Your task to perform on an android device: What's on the menu at Papa Murphy's? Image 0: 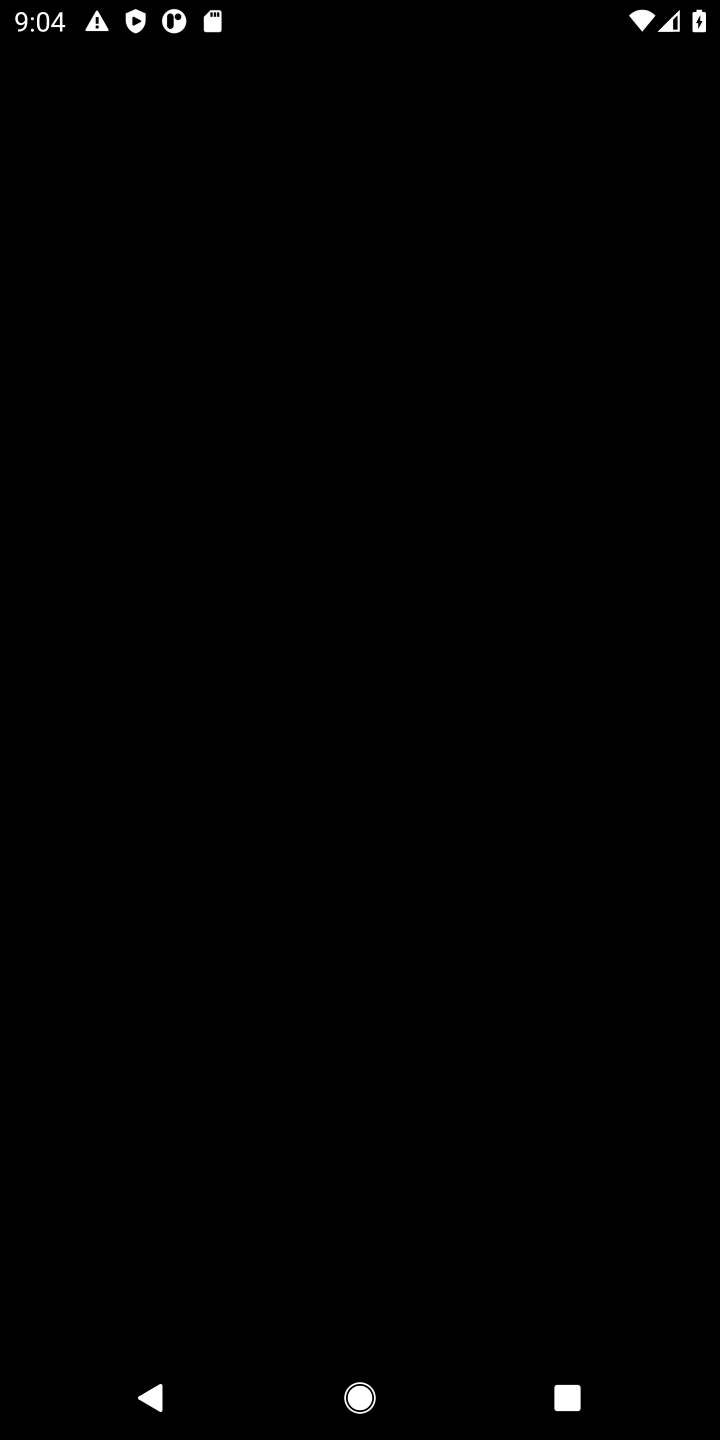
Step 0: press home button
Your task to perform on an android device: What's on the menu at Papa Murphy's? Image 1: 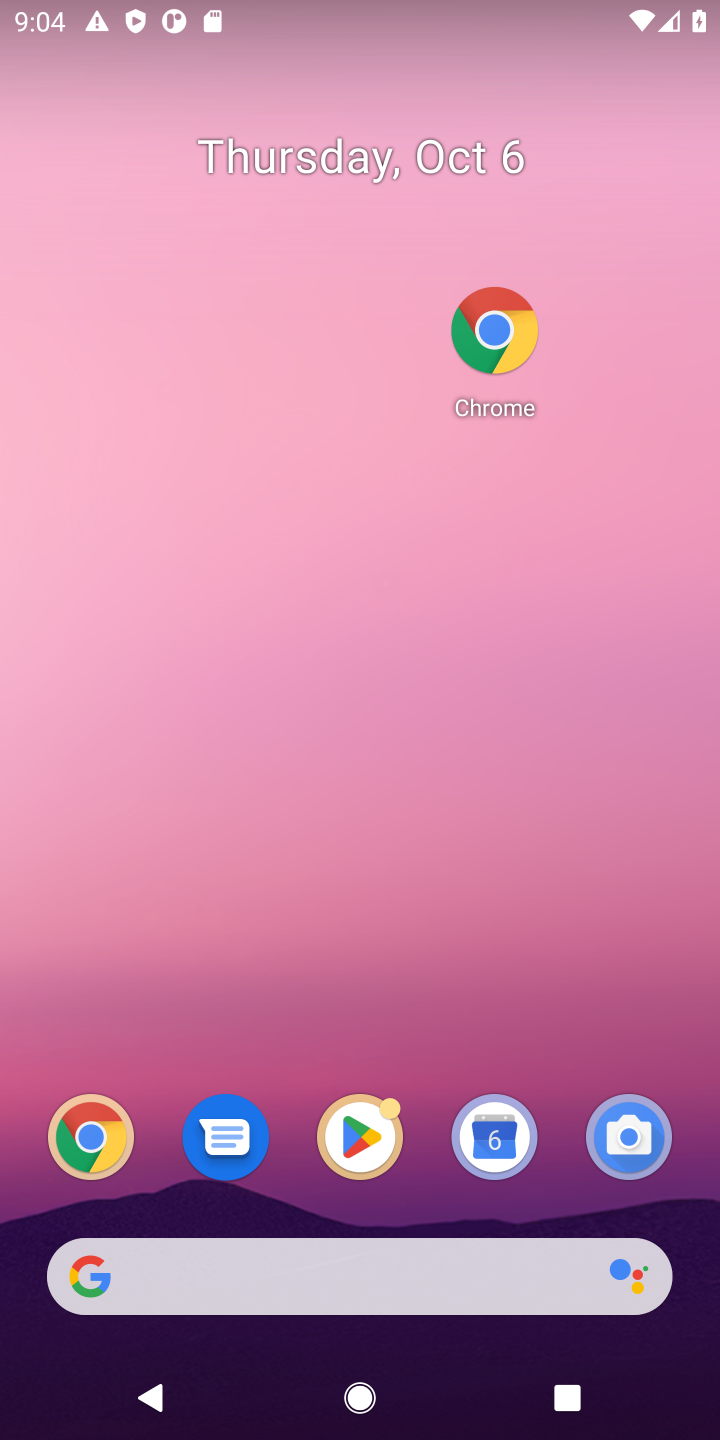
Step 1: click (108, 1145)
Your task to perform on an android device: What's on the menu at Papa Murphy's? Image 2: 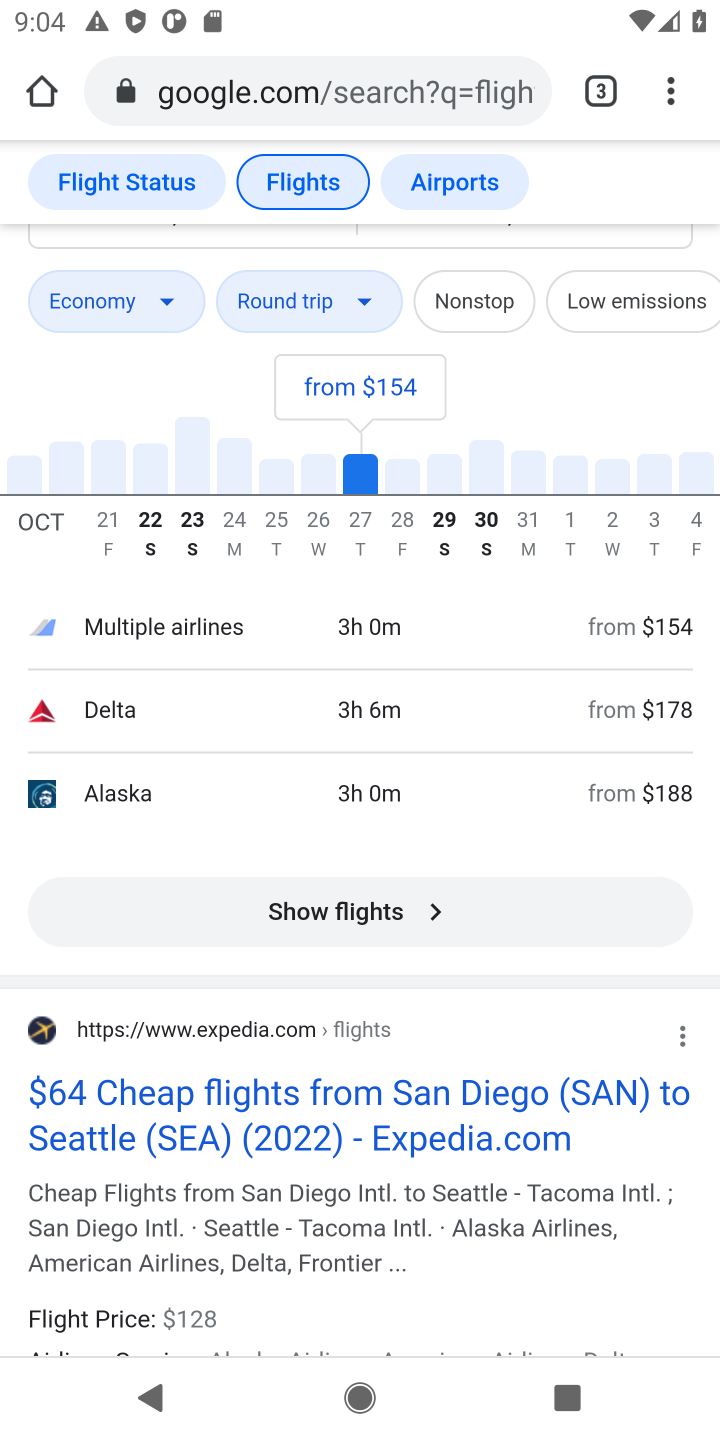
Step 2: click (514, 91)
Your task to perform on an android device: What's on the menu at Papa Murphy's? Image 3: 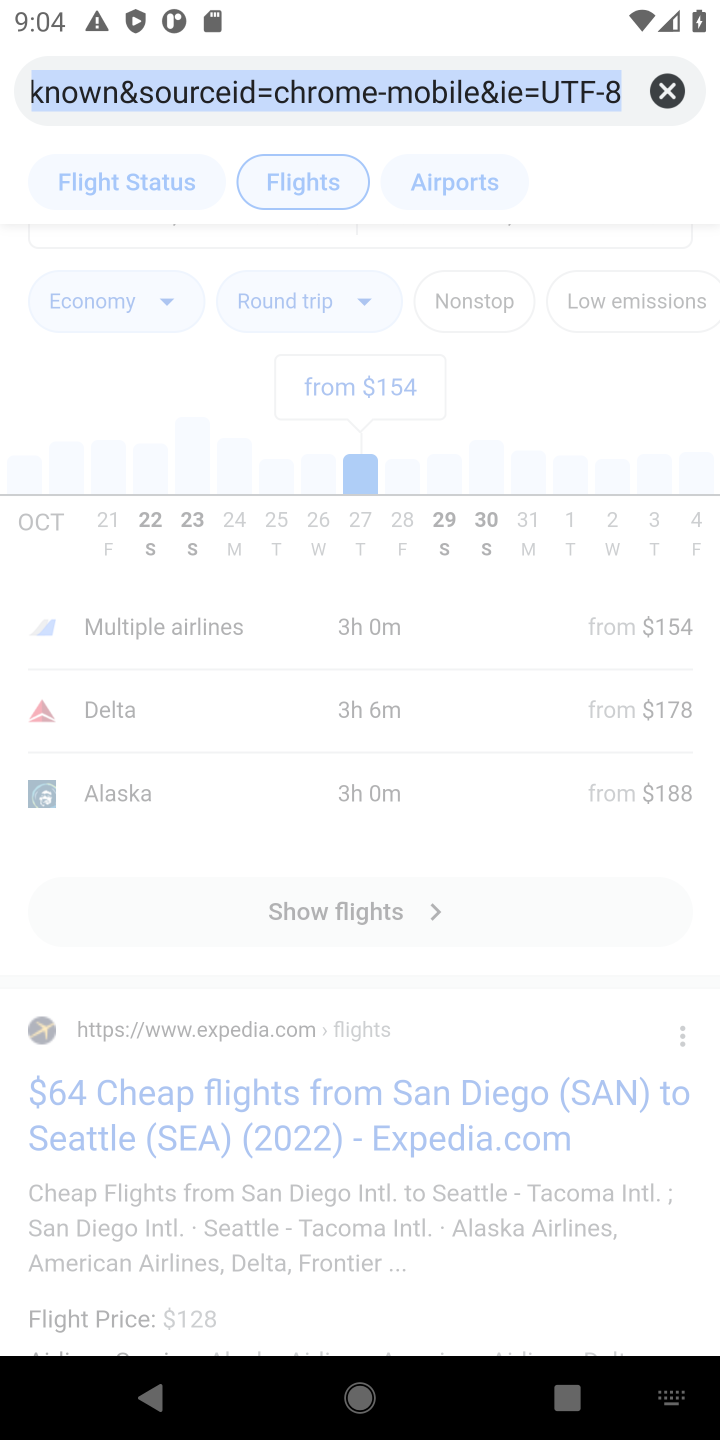
Step 3: click (646, 103)
Your task to perform on an android device: What's on the menu at Papa Murphy's? Image 4: 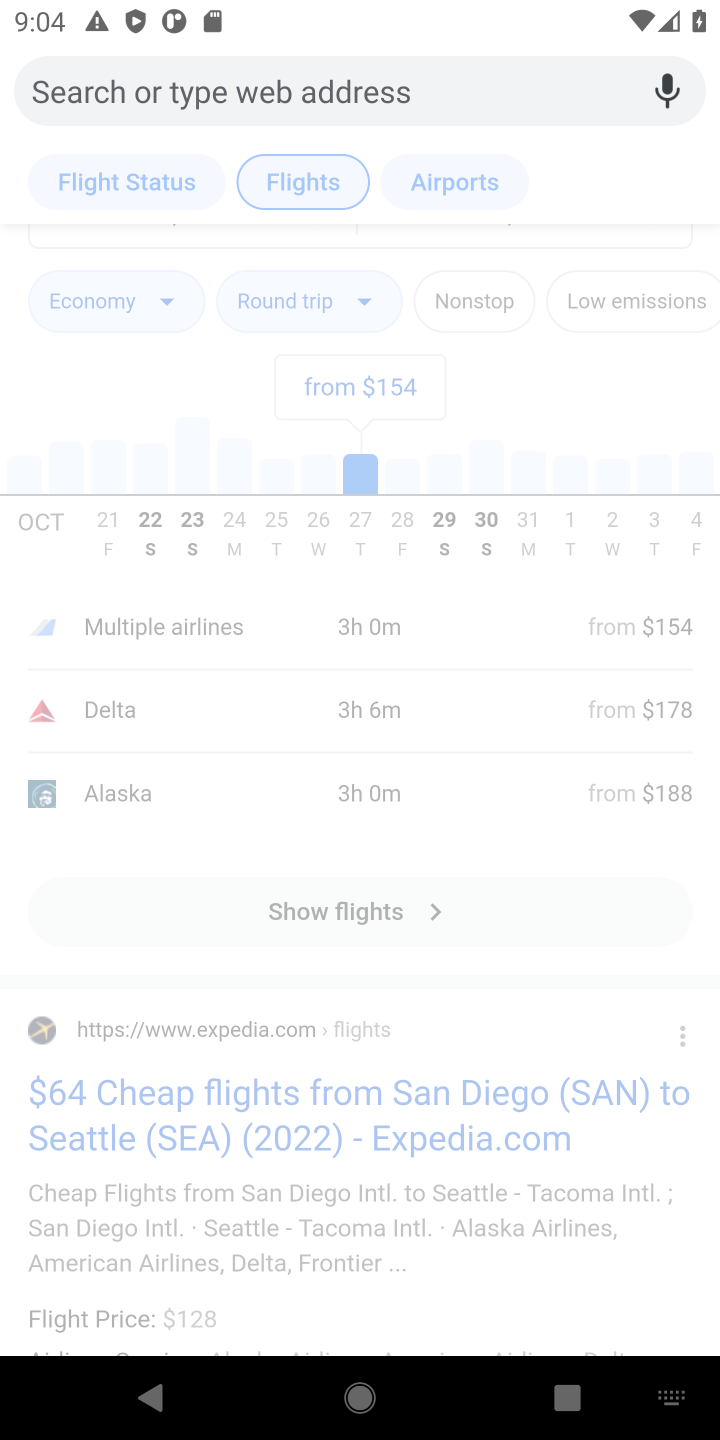
Step 4: type "menu at Papa Murphy's"
Your task to perform on an android device: What's on the menu at Papa Murphy's? Image 5: 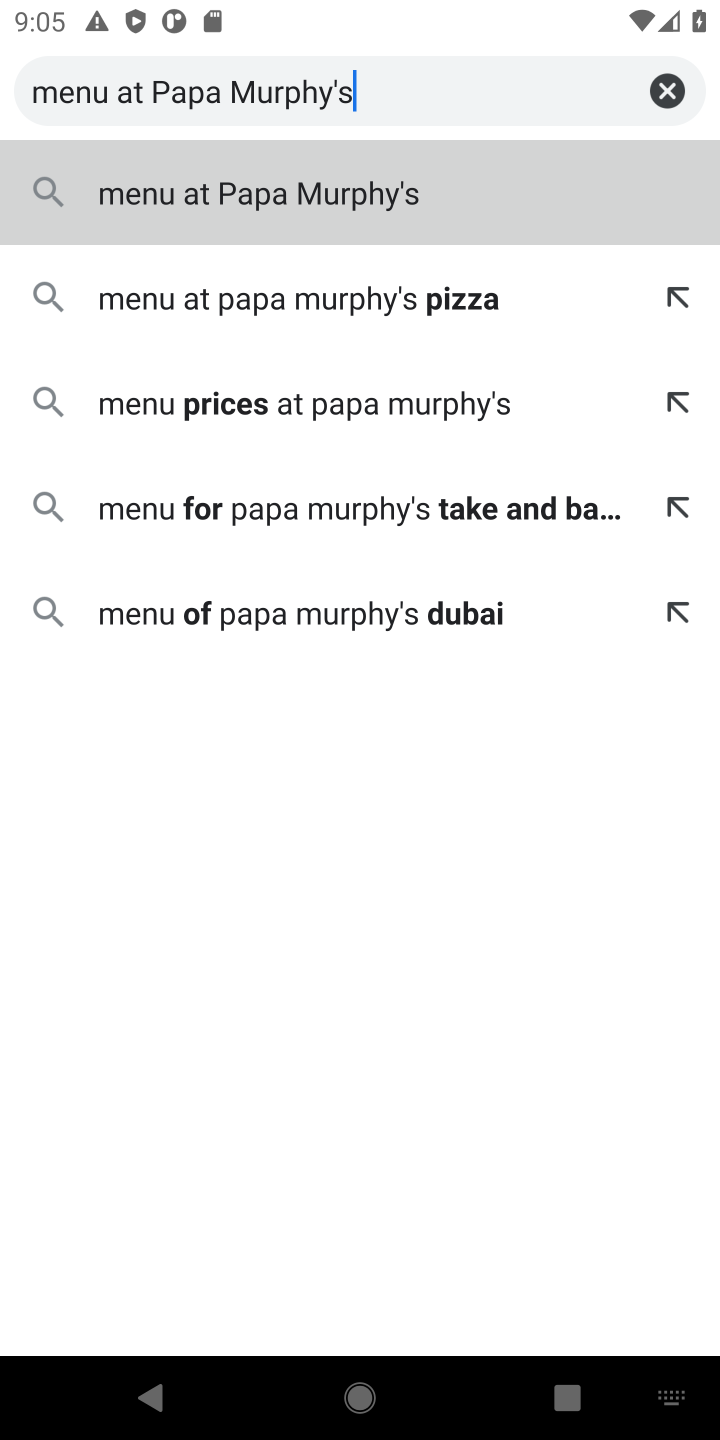
Step 5: click (211, 197)
Your task to perform on an android device: What's on the menu at Papa Murphy's? Image 6: 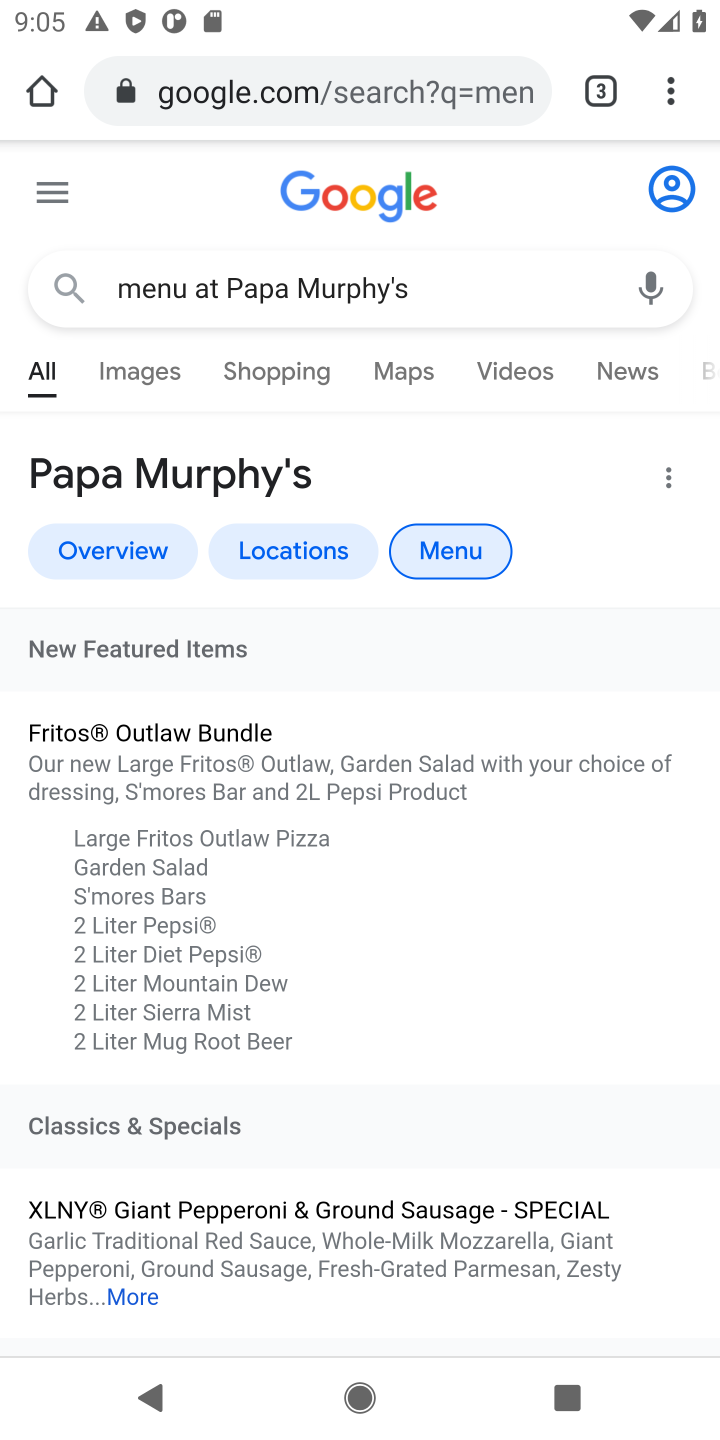
Step 6: task complete